Your task to perform on an android device: open a bookmark in the chrome app Image 0: 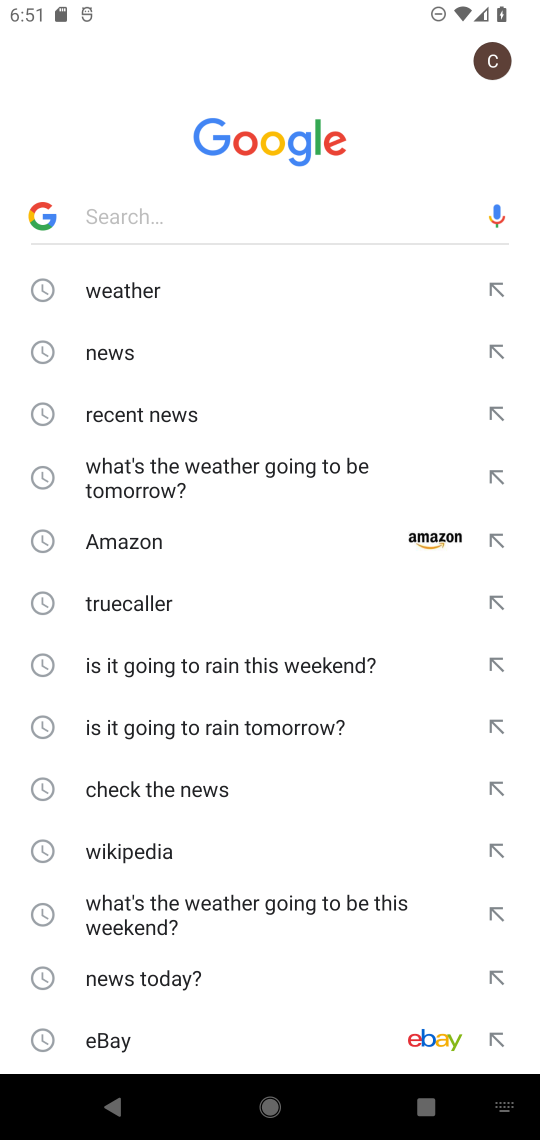
Step 0: press home button
Your task to perform on an android device: open a bookmark in the chrome app Image 1: 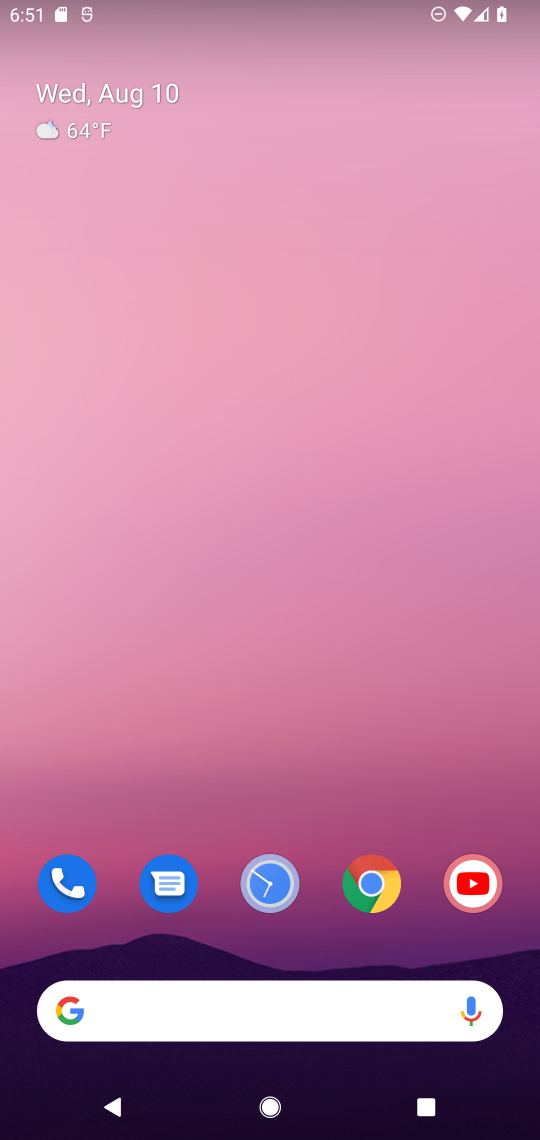
Step 1: drag from (301, 914) to (308, 28)
Your task to perform on an android device: open a bookmark in the chrome app Image 2: 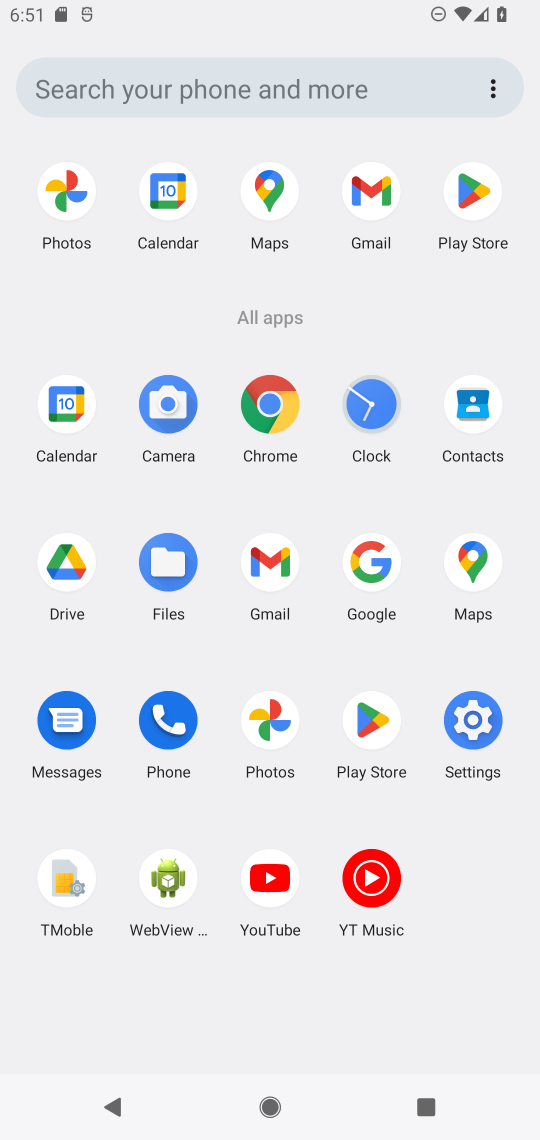
Step 2: click (277, 412)
Your task to perform on an android device: open a bookmark in the chrome app Image 3: 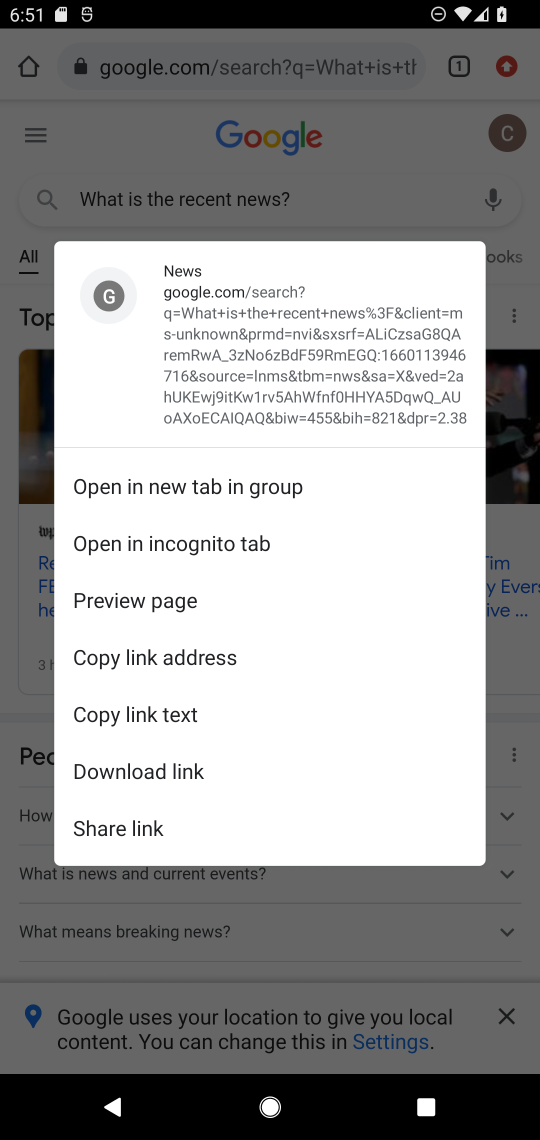
Step 3: click (408, 167)
Your task to perform on an android device: open a bookmark in the chrome app Image 4: 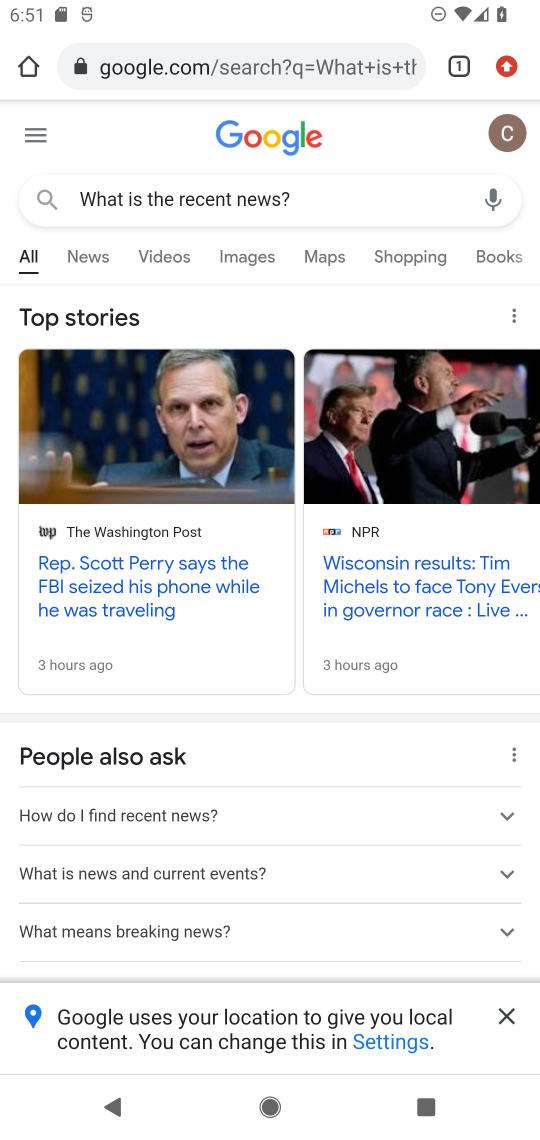
Step 4: task complete